Your task to perform on an android device: What's on my calendar today? Image 0: 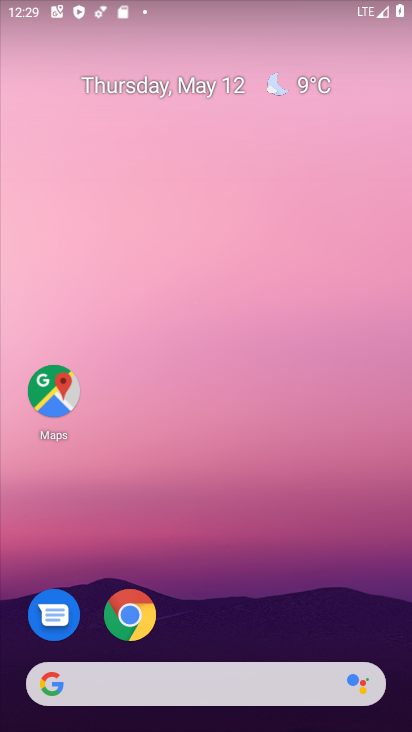
Step 0: drag from (235, 593) to (214, 70)
Your task to perform on an android device: What's on my calendar today? Image 1: 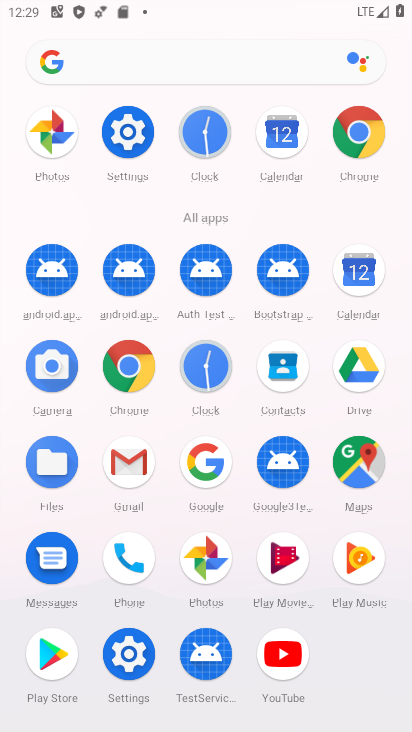
Step 1: click (280, 133)
Your task to perform on an android device: What's on my calendar today? Image 2: 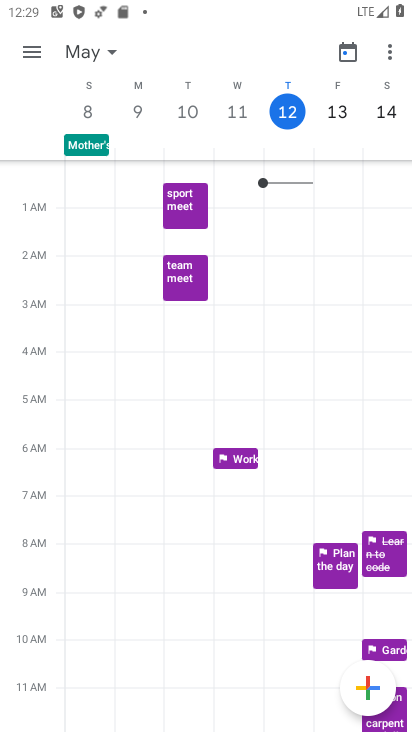
Step 2: click (346, 55)
Your task to perform on an android device: What's on my calendar today? Image 3: 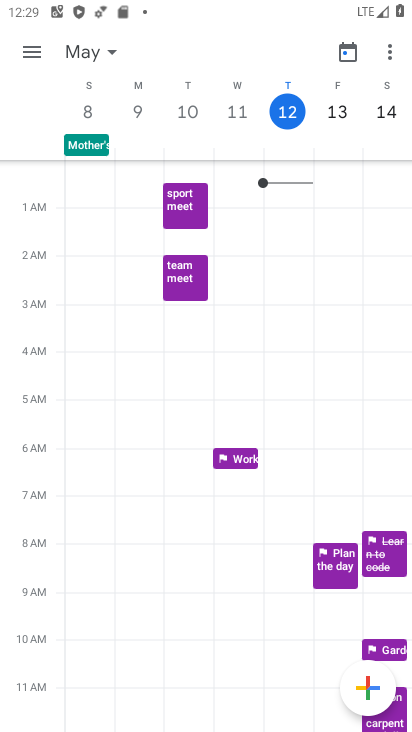
Step 3: click (347, 53)
Your task to perform on an android device: What's on my calendar today? Image 4: 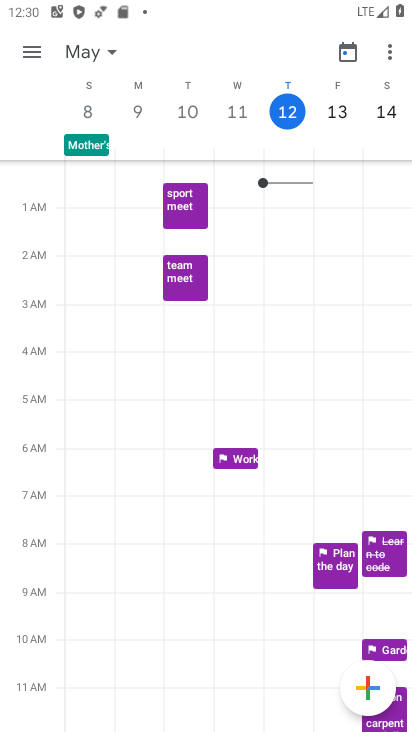
Step 4: click (21, 53)
Your task to perform on an android device: What's on my calendar today? Image 5: 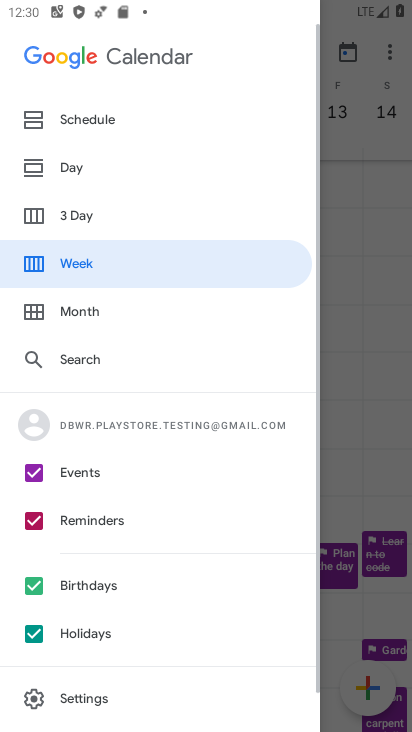
Step 5: click (50, 109)
Your task to perform on an android device: What's on my calendar today? Image 6: 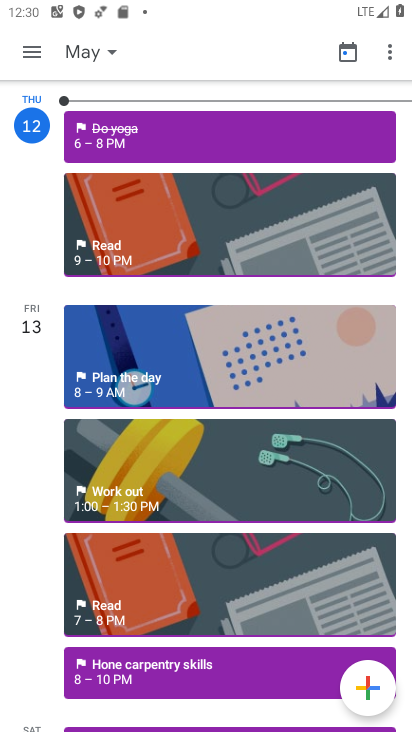
Step 6: click (206, 139)
Your task to perform on an android device: What's on my calendar today? Image 7: 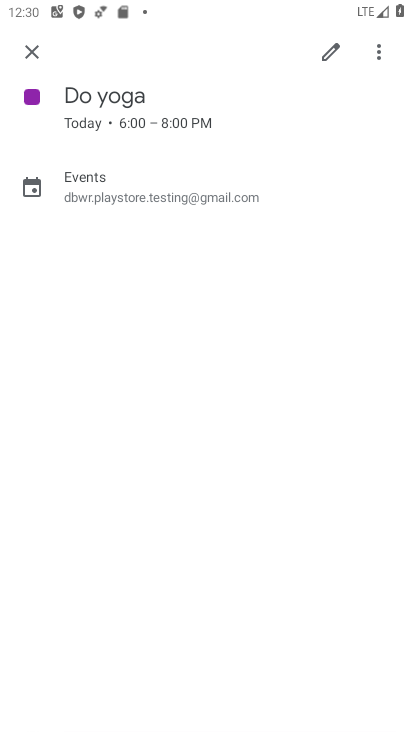
Step 7: task complete